Your task to perform on an android device: Check the weather Image 0: 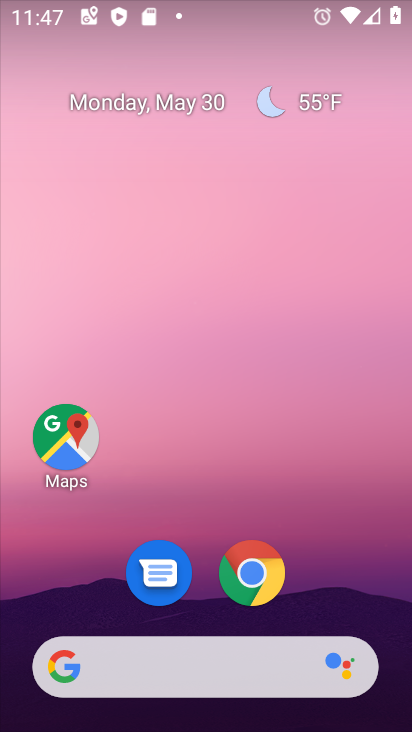
Step 0: click (146, 677)
Your task to perform on an android device: Check the weather Image 1: 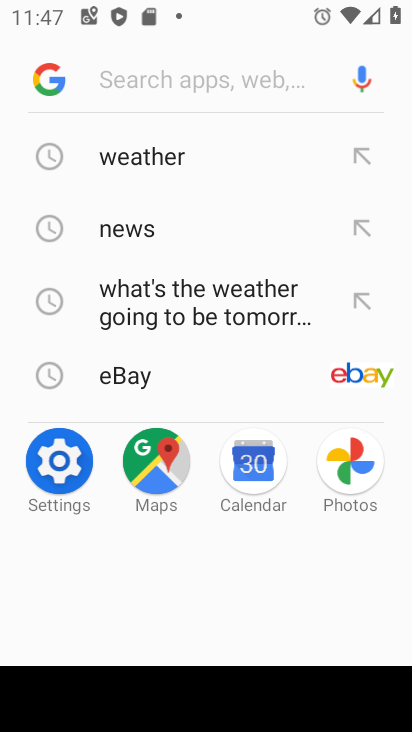
Step 1: click (161, 156)
Your task to perform on an android device: Check the weather Image 2: 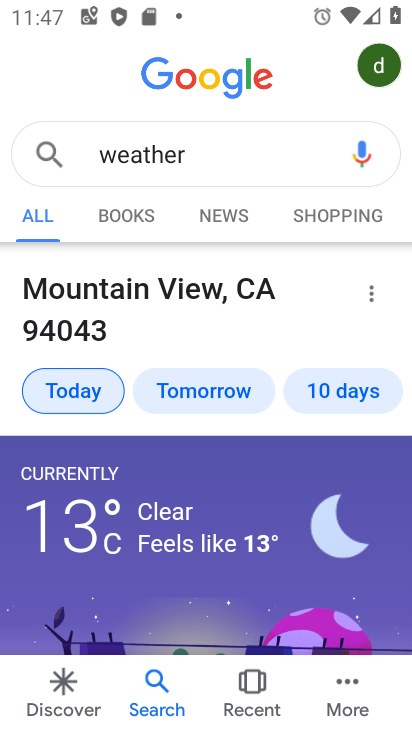
Step 2: task complete